Your task to perform on an android device: Open the phone app and click the voicemail tab. Image 0: 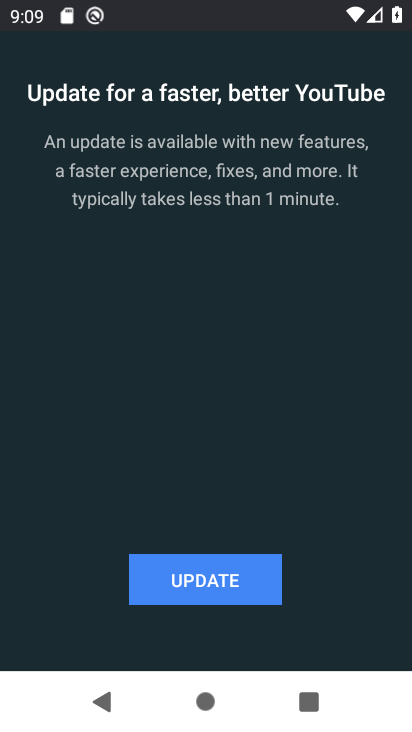
Step 0: press home button
Your task to perform on an android device: Open the phone app and click the voicemail tab. Image 1: 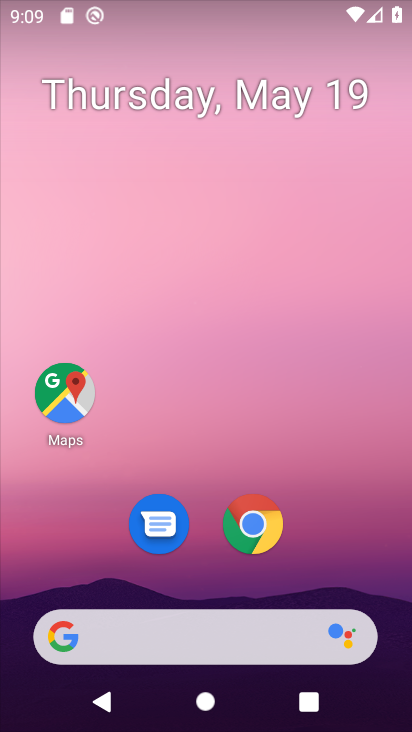
Step 1: drag from (344, 526) to (292, 44)
Your task to perform on an android device: Open the phone app and click the voicemail tab. Image 2: 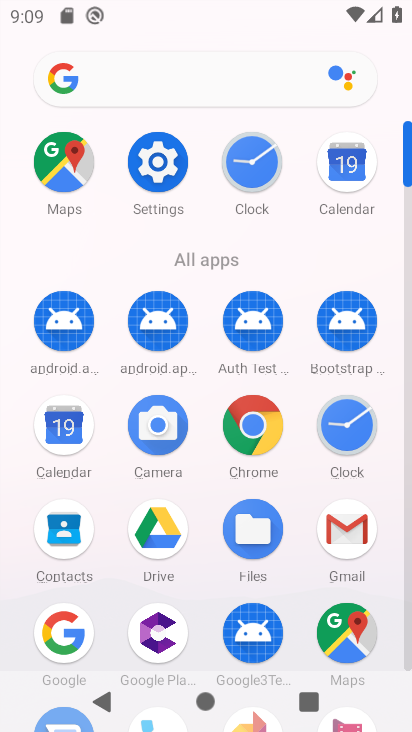
Step 2: drag from (220, 483) to (258, 247)
Your task to perform on an android device: Open the phone app and click the voicemail tab. Image 3: 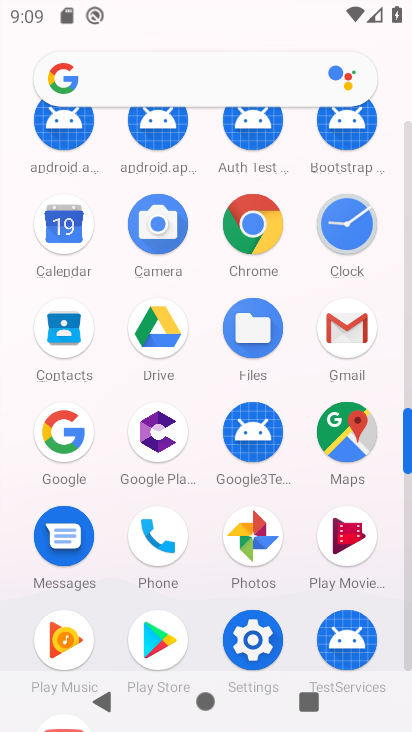
Step 3: click (171, 529)
Your task to perform on an android device: Open the phone app and click the voicemail tab. Image 4: 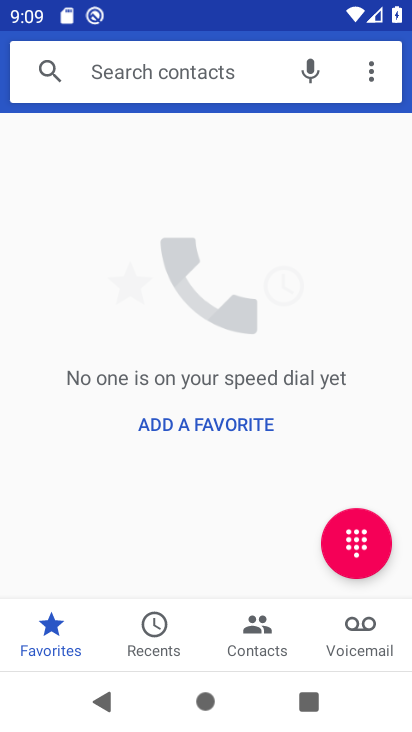
Step 4: click (354, 628)
Your task to perform on an android device: Open the phone app and click the voicemail tab. Image 5: 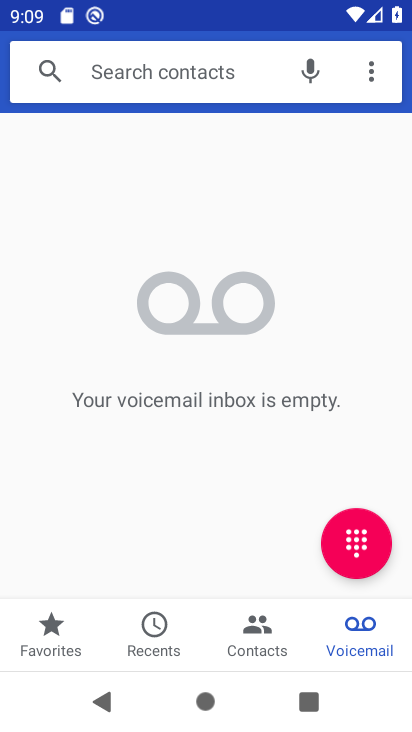
Step 5: task complete